Your task to perform on an android device: Go to network settings Image 0: 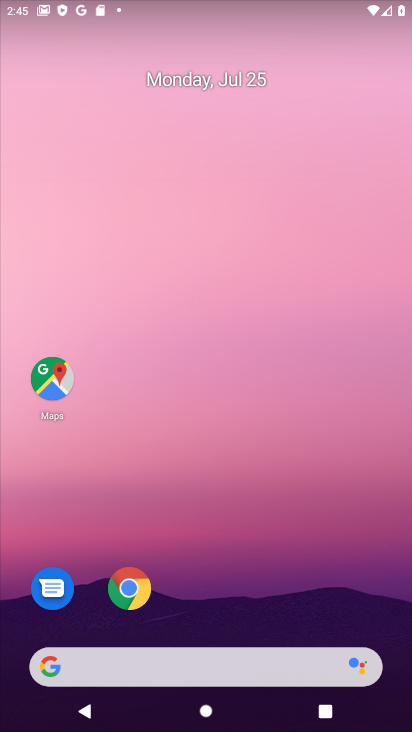
Step 0: drag from (389, 638) to (364, 146)
Your task to perform on an android device: Go to network settings Image 1: 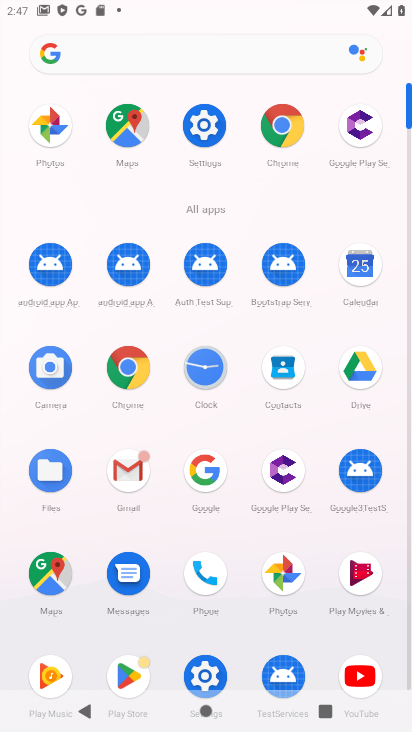
Step 1: click (207, 675)
Your task to perform on an android device: Go to network settings Image 2: 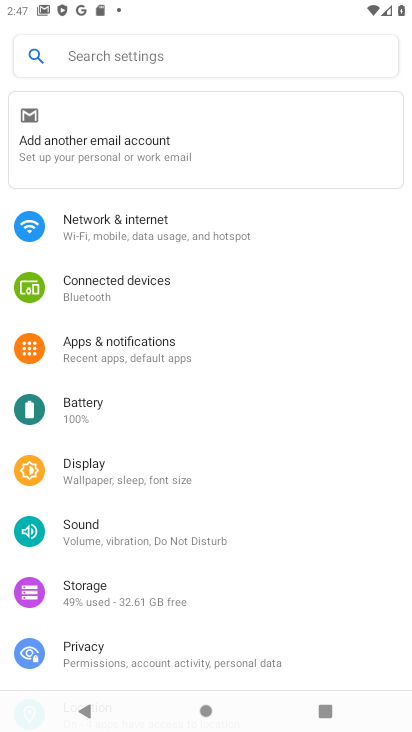
Step 2: click (107, 232)
Your task to perform on an android device: Go to network settings Image 3: 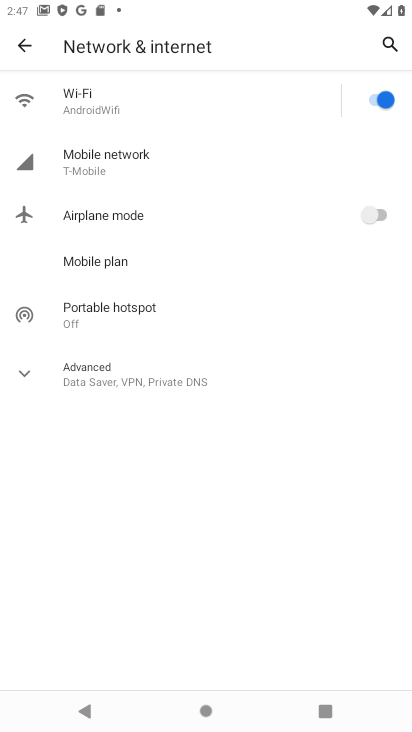
Step 3: click (75, 156)
Your task to perform on an android device: Go to network settings Image 4: 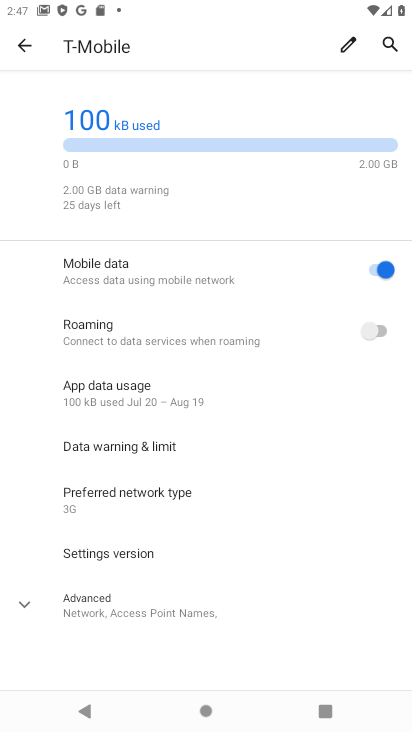
Step 4: task complete